Your task to perform on an android device: Open battery settings Image 0: 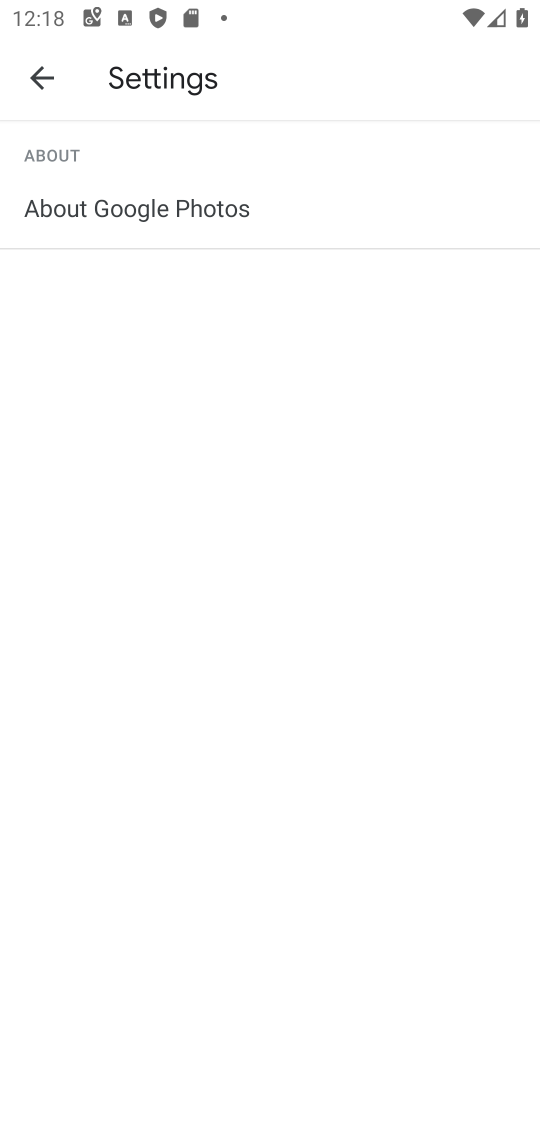
Step 0: press home button
Your task to perform on an android device: Open battery settings Image 1: 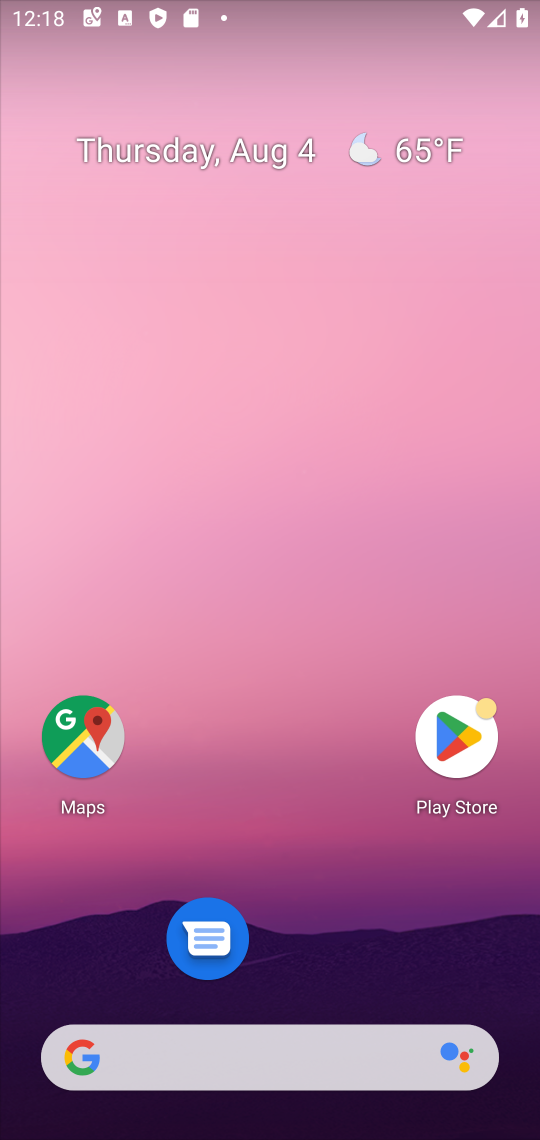
Step 1: drag from (219, 868) to (336, 55)
Your task to perform on an android device: Open battery settings Image 2: 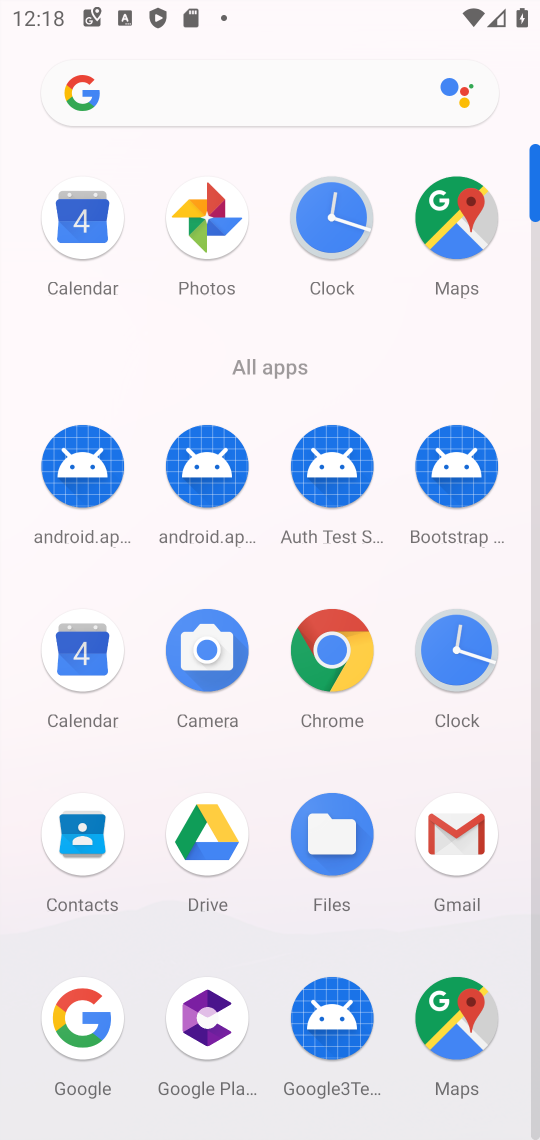
Step 2: drag from (335, 1011) to (485, 3)
Your task to perform on an android device: Open battery settings Image 3: 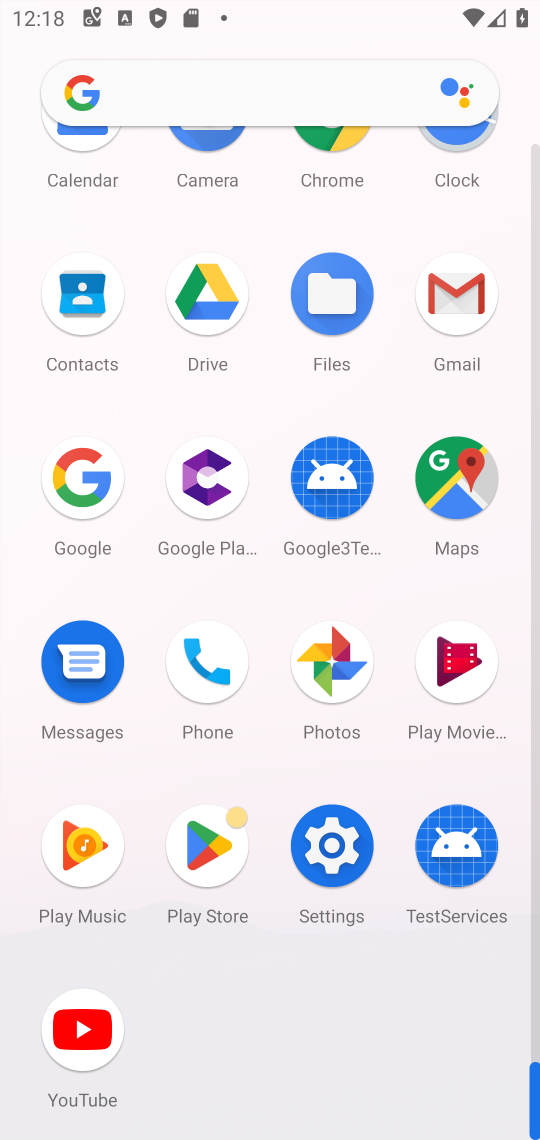
Step 3: click (292, 846)
Your task to perform on an android device: Open battery settings Image 4: 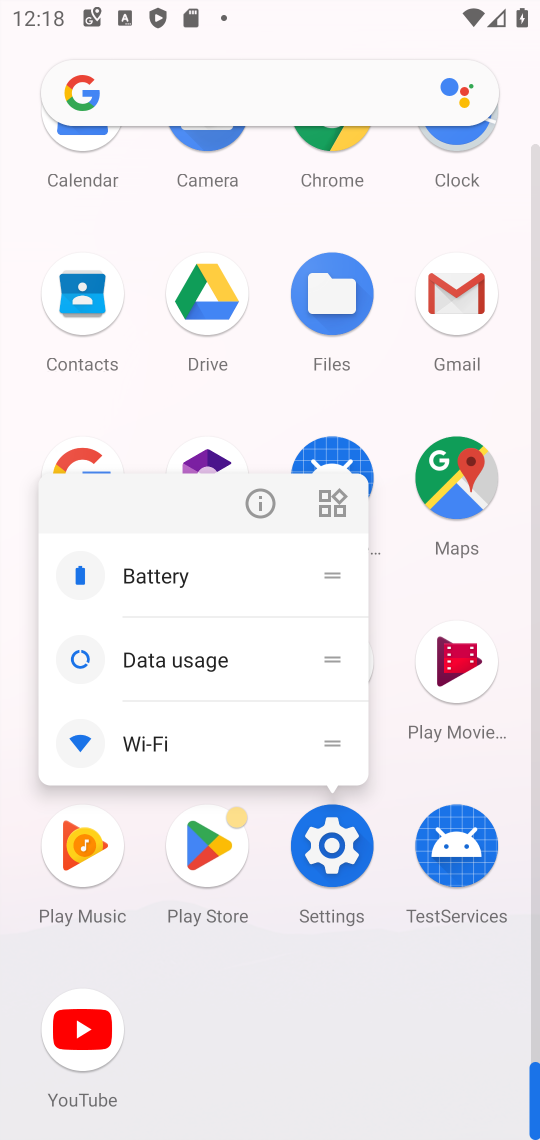
Step 4: click (292, 846)
Your task to perform on an android device: Open battery settings Image 5: 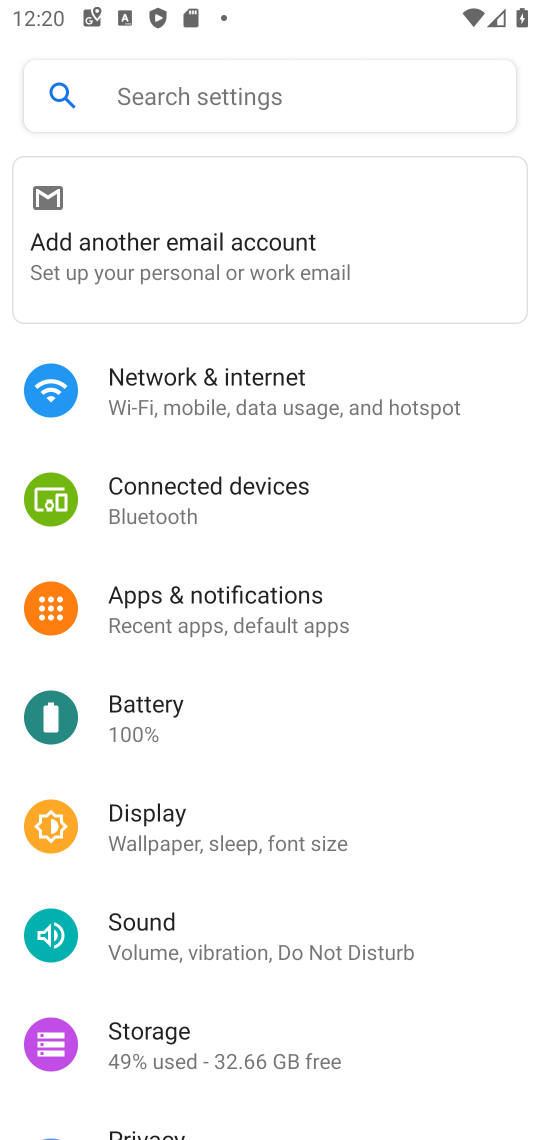
Step 5: click (164, 727)
Your task to perform on an android device: Open battery settings Image 6: 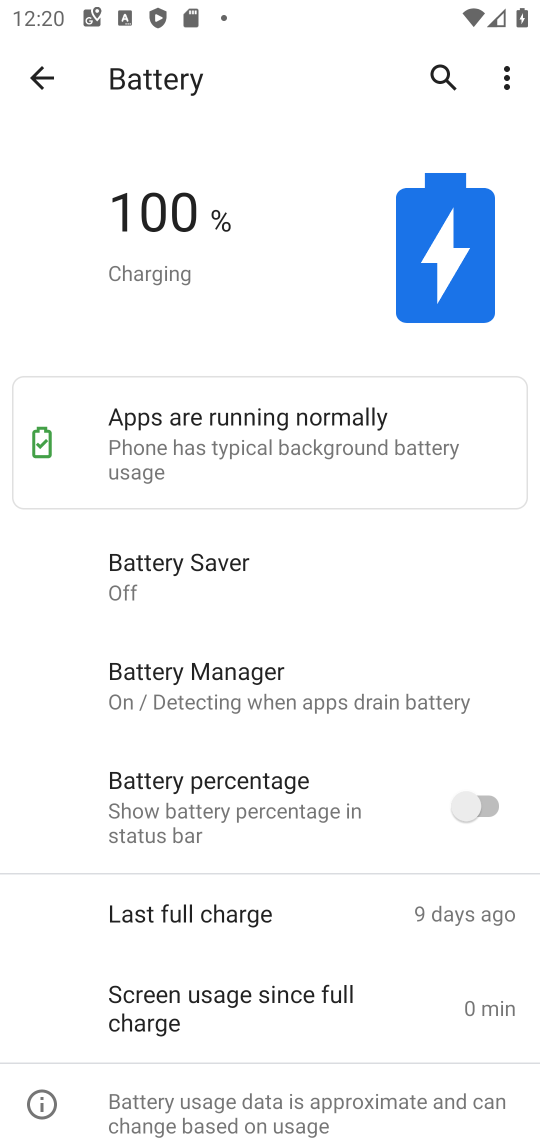
Step 6: task complete